Your task to perform on an android device: see creations saved in the google photos Image 0: 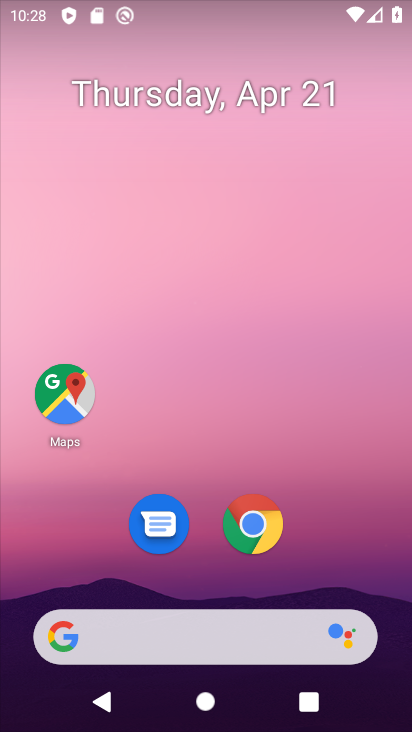
Step 0: drag from (340, 536) to (352, 227)
Your task to perform on an android device: see creations saved in the google photos Image 1: 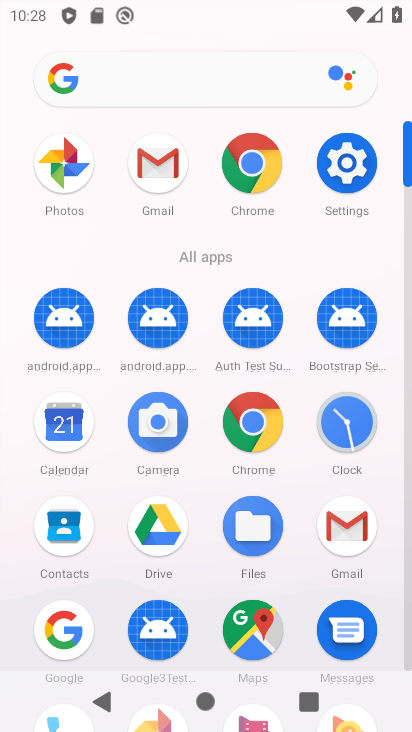
Step 1: click (56, 168)
Your task to perform on an android device: see creations saved in the google photos Image 2: 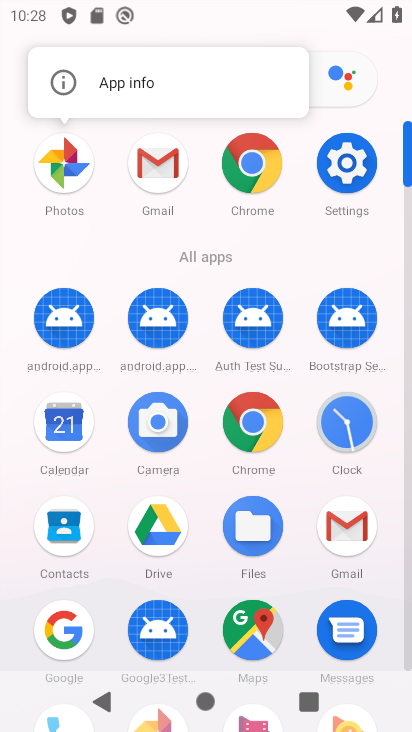
Step 2: click (56, 166)
Your task to perform on an android device: see creations saved in the google photos Image 3: 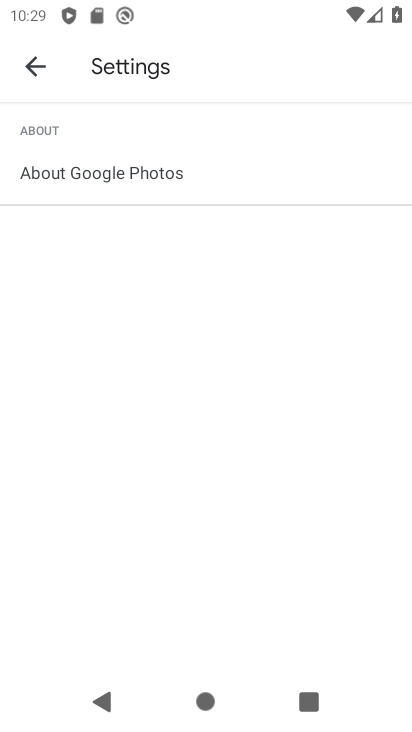
Step 3: click (40, 61)
Your task to perform on an android device: see creations saved in the google photos Image 4: 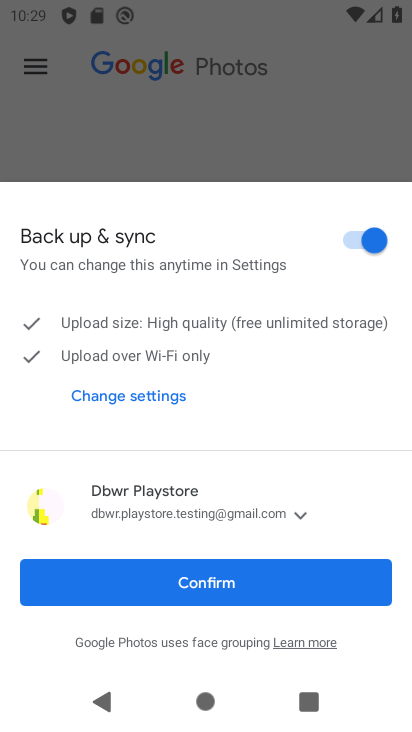
Step 4: click (207, 584)
Your task to perform on an android device: see creations saved in the google photos Image 5: 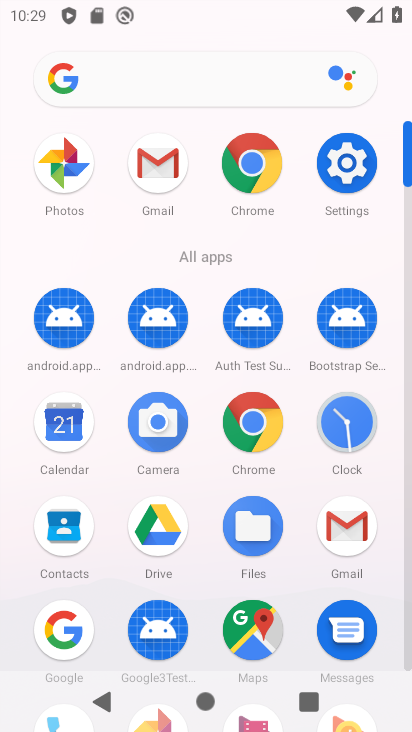
Step 5: click (77, 162)
Your task to perform on an android device: see creations saved in the google photos Image 6: 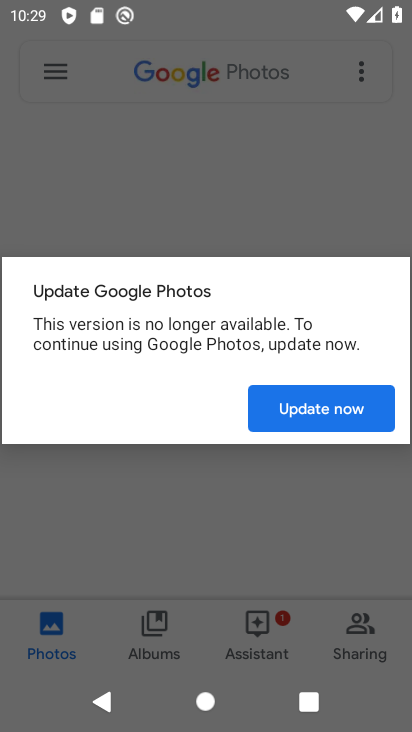
Step 6: click (291, 418)
Your task to perform on an android device: see creations saved in the google photos Image 7: 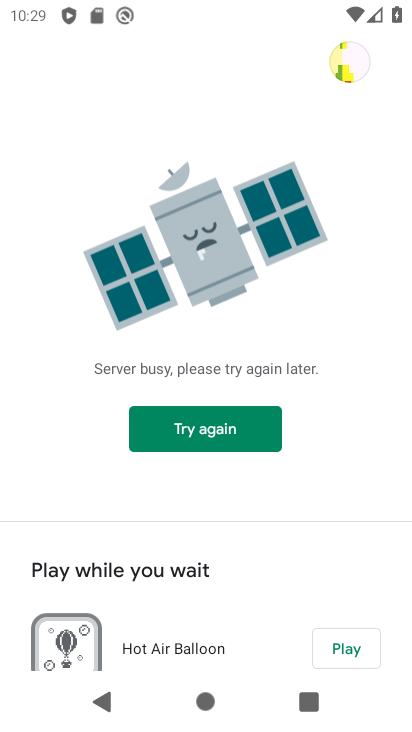
Step 7: press back button
Your task to perform on an android device: see creations saved in the google photos Image 8: 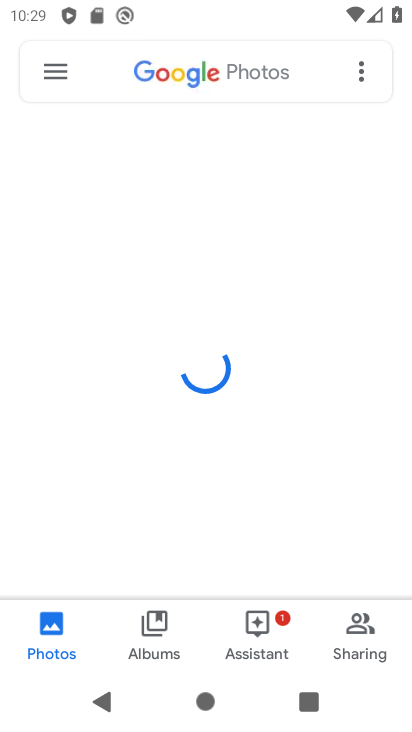
Step 8: click (53, 69)
Your task to perform on an android device: see creations saved in the google photos Image 9: 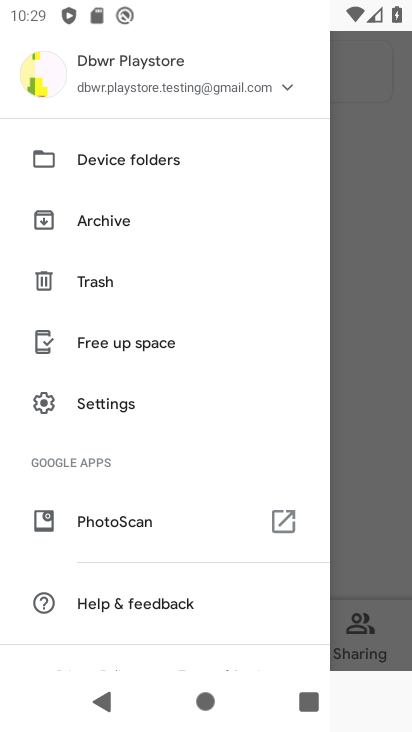
Step 9: click (379, 303)
Your task to perform on an android device: see creations saved in the google photos Image 10: 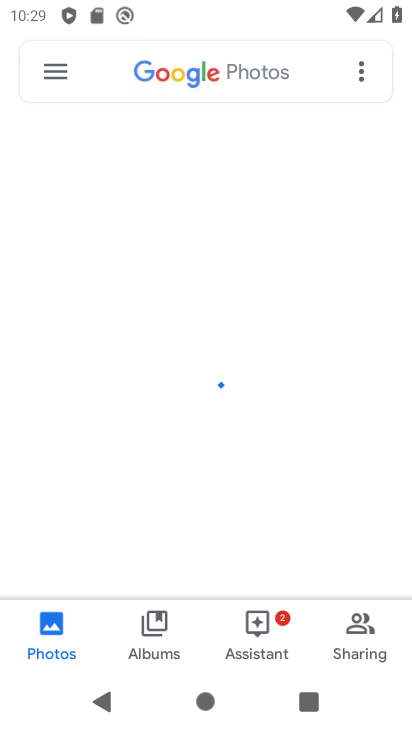
Step 10: click (282, 66)
Your task to perform on an android device: see creations saved in the google photos Image 11: 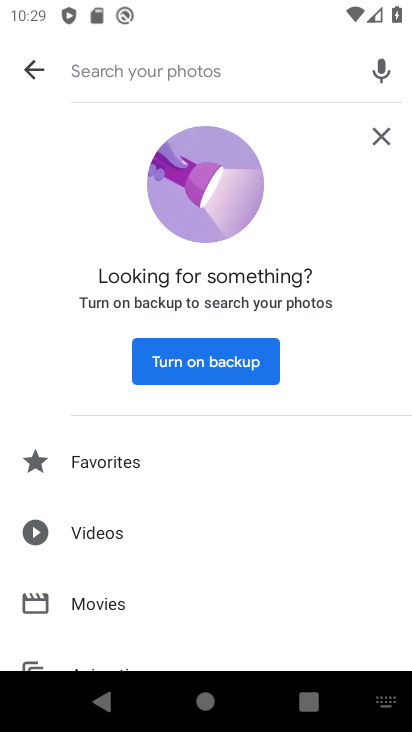
Step 11: drag from (168, 580) to (218, 290)
Your task to perform on an android device: see creations saved in the google photos Image 12: 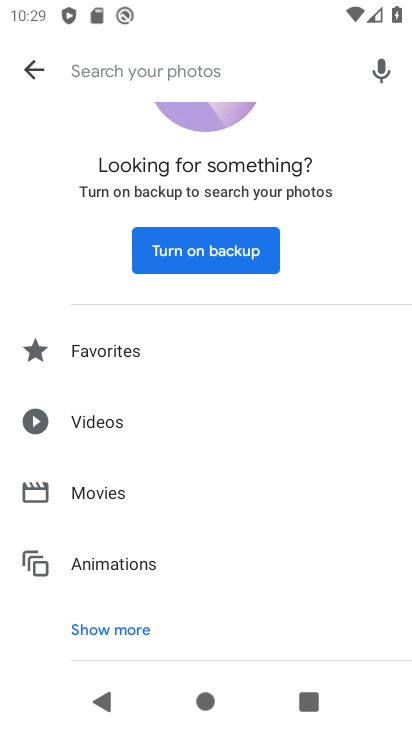
Step 12: click (115, 624)
Your task to perform on an android device: see creations saved in the google photos Image 13: 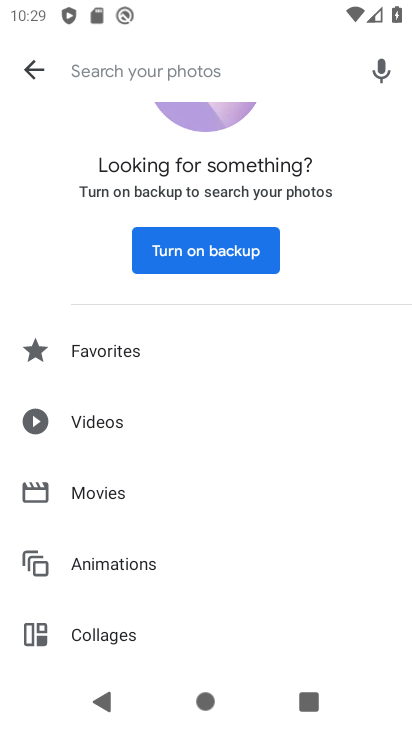
Step 13: drag from (192, 572) to (216, 261)
Your task to perform on an android device: see creations saved in the google photos Image 14: 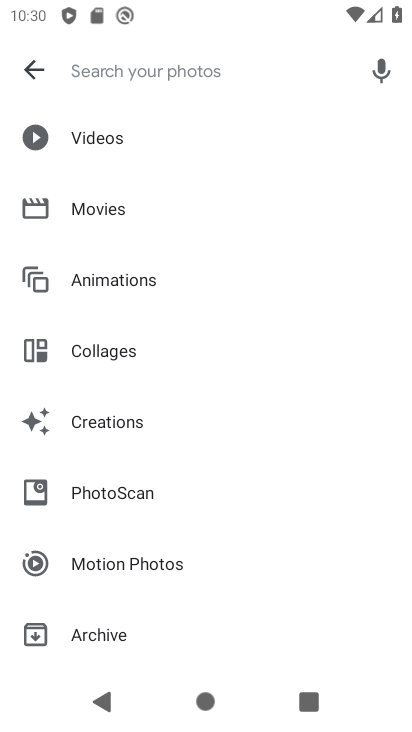
Step 14: click (101, 420)
Your task to perform on an android device: see creations saved in the google photos Image 15: 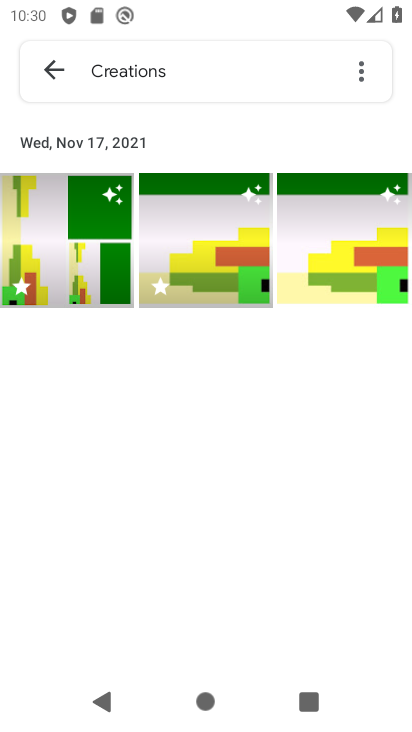
Step 15: task complete